Your task to perform on an android device: What's the weather today? Image 0: 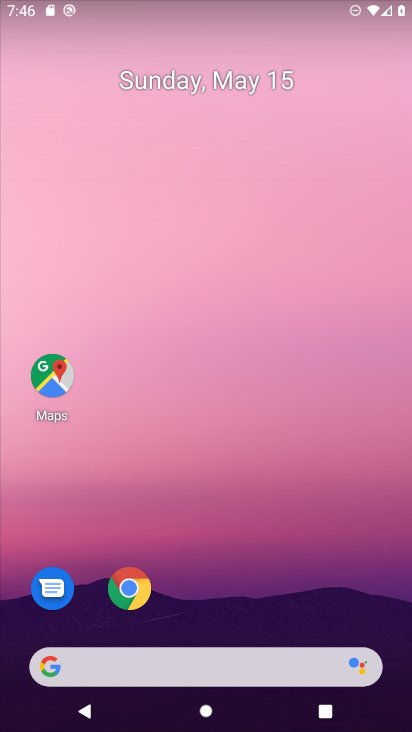
Step 0: press home button
Your task to perform on an android device: What's the weather today? Image 1: 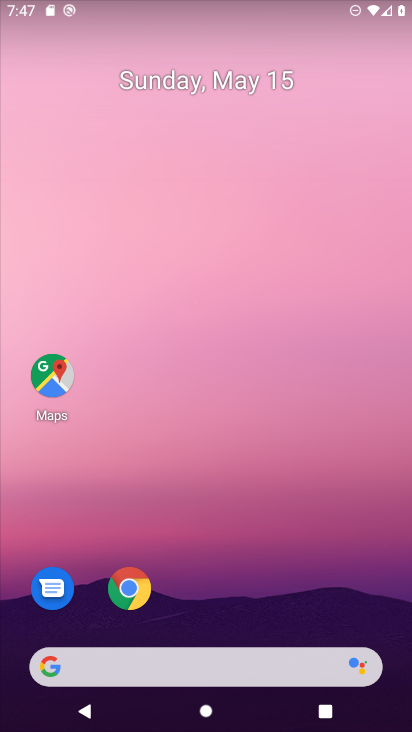
Step 1: click (173, 668)
Your task to perform on an android device: What's the weather today? Image 2: 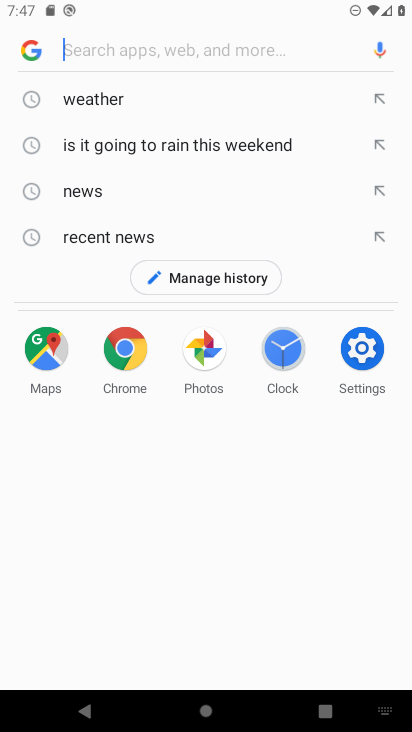
Step 2: click (127, 88)
Your task to perform on an android device: What's the weather today? Image 3: 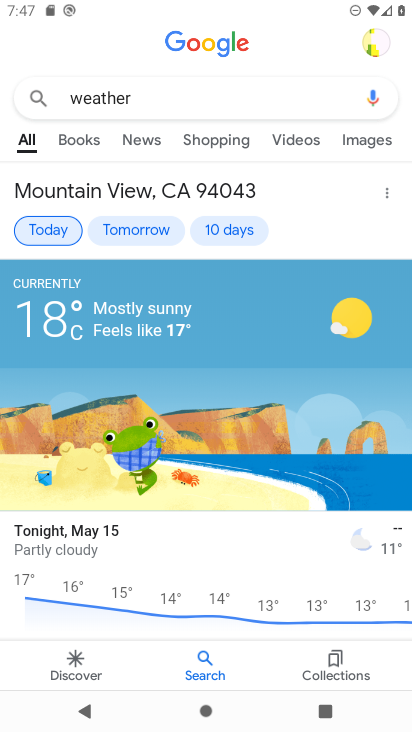
Step 3: task complete